Your task to perform on an android device: stop showing notifications on the lock screen Image 0: 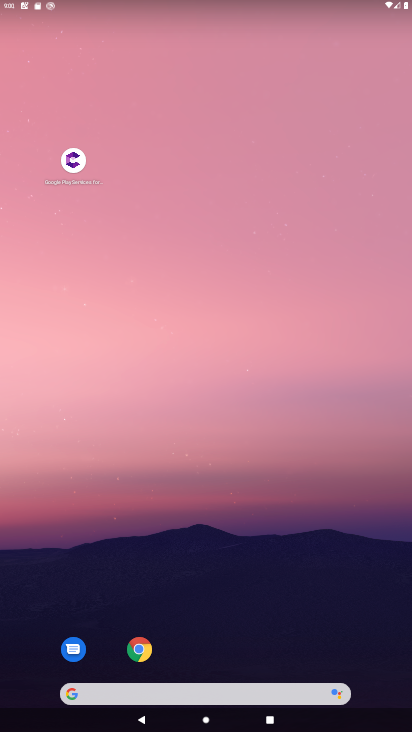
Step 0: drag from (235, 663) to (211, 69)
Your task to perform on an android device: stop showing notifications on the lock screen Image 1: 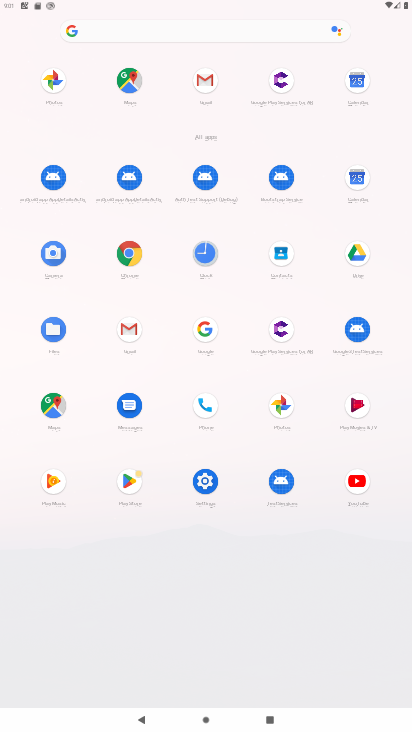
Step 1: click (212, 496)
Your task to perform on an android device: stop showing notifications on the lock screen Image 2: 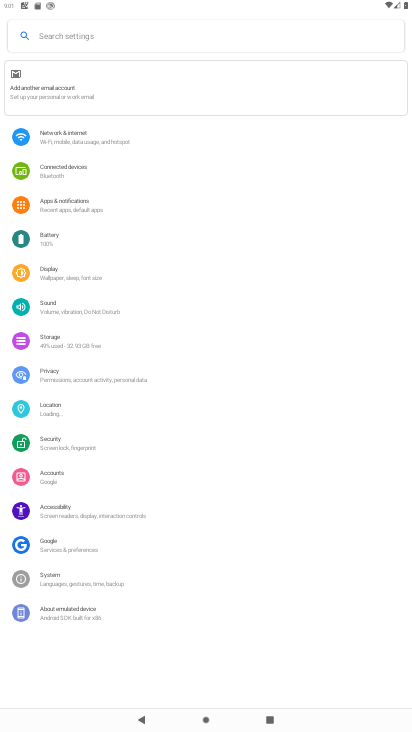
Step 2: click (60, 195)
Your task to perform on an android device: stop showing notifications on the lock screen Image 3: 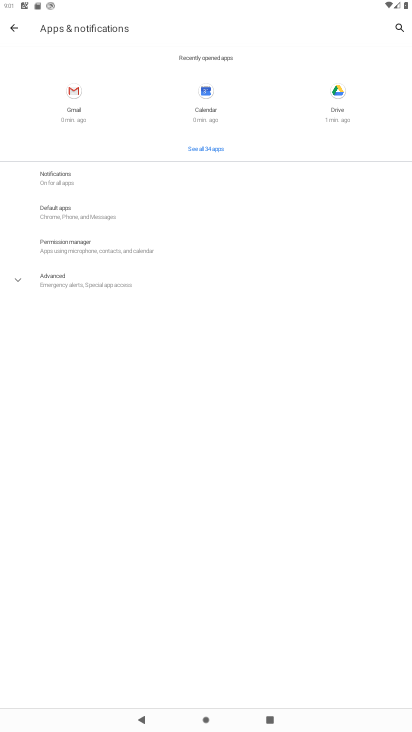
Step 3: click (59, 187)
Your task to perform on an android device: stop showing notifications on the lock screen Image 4: 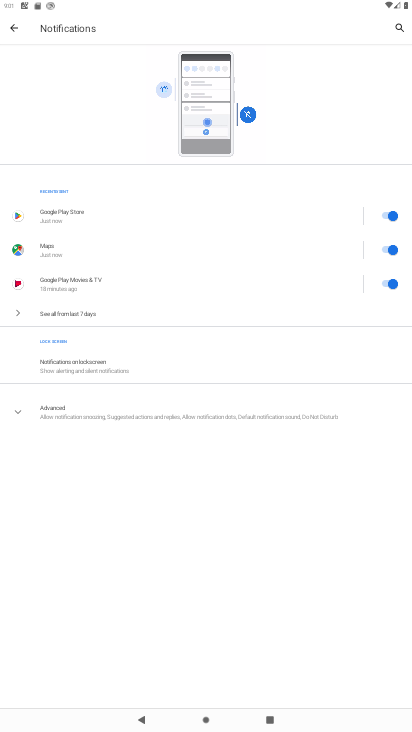
Step 4: click (136, 369)
Your task to perform on an android device: stop showing notifications on the lock screen Image 5: 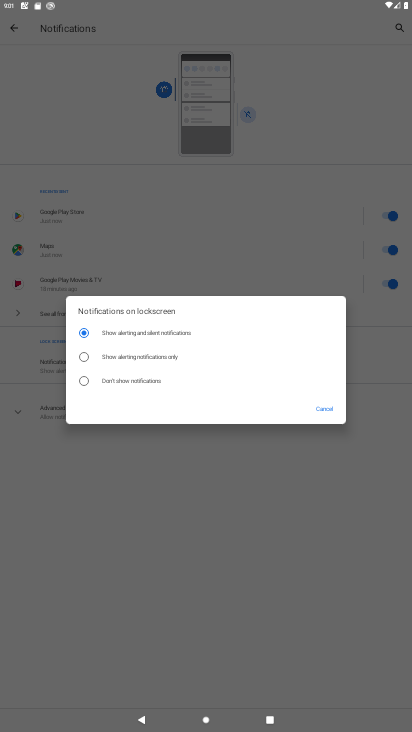
Step 5: click (127, 379)
Your task to perform on an android device: stop showing notifications on the lock screen Image 6: 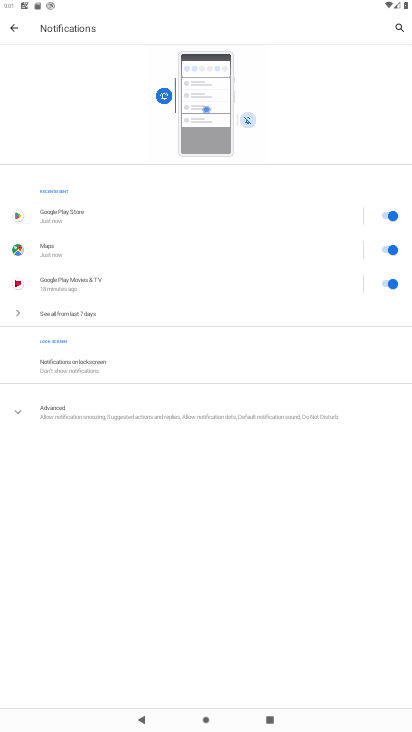
Step 6: task complete